Your task to perform on an android device: check data usage Image 0: 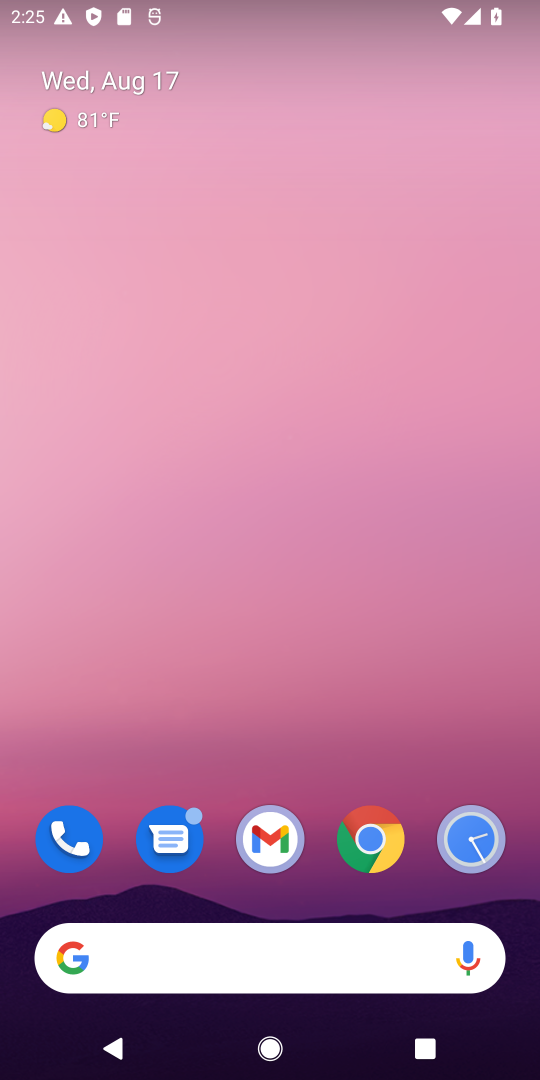
Step 0: drag from (312, 898) to (299, 185)
Your task to perform on an android device: check data usage Image 1: 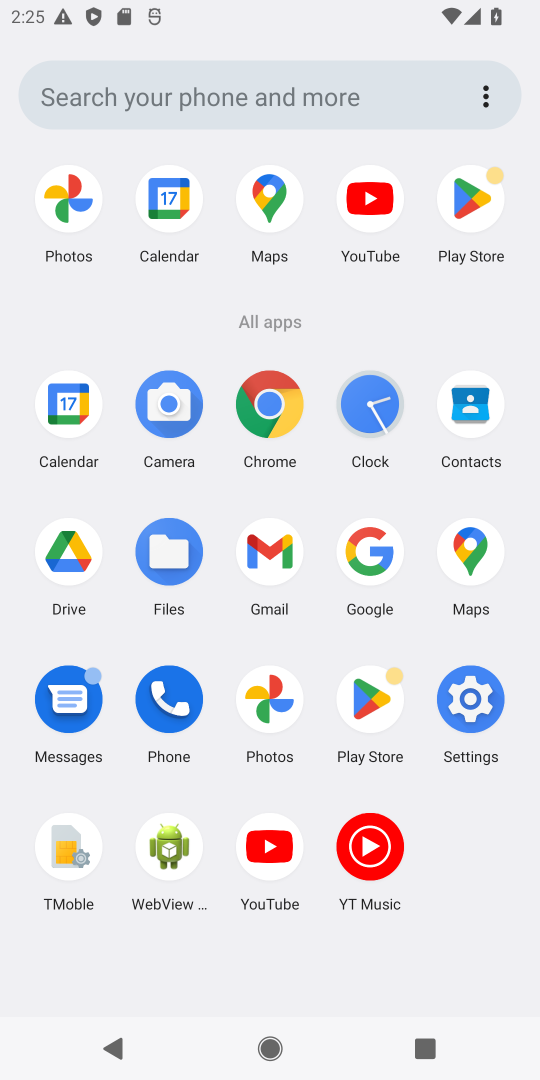
Step 1: click (466, 699)
Your task to perform on an android device: check data usage Image 2: 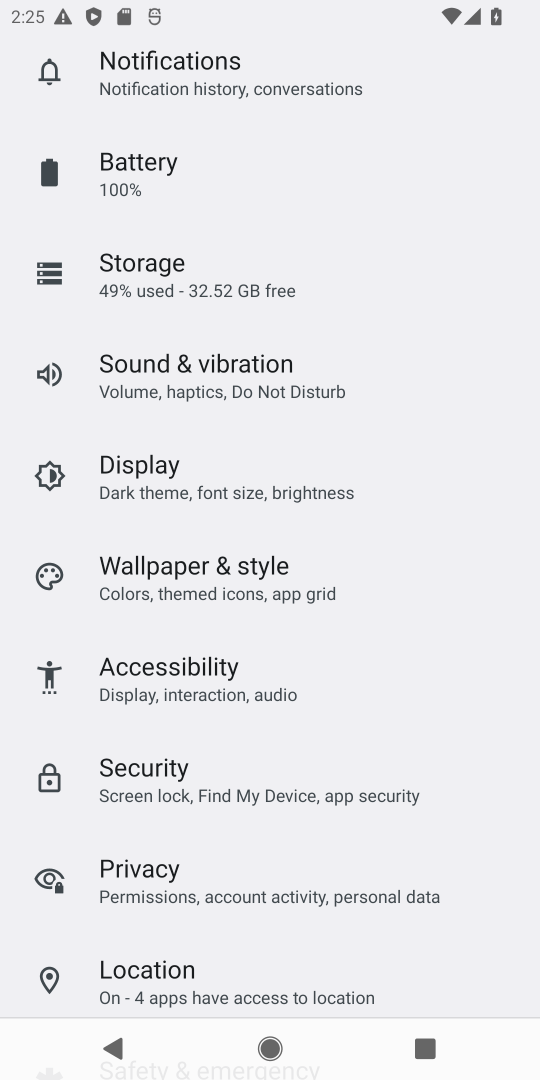
Step 2: drag from (193, 187) to (237, 726)
Your task to perform on an android device: check data usage Image 3: 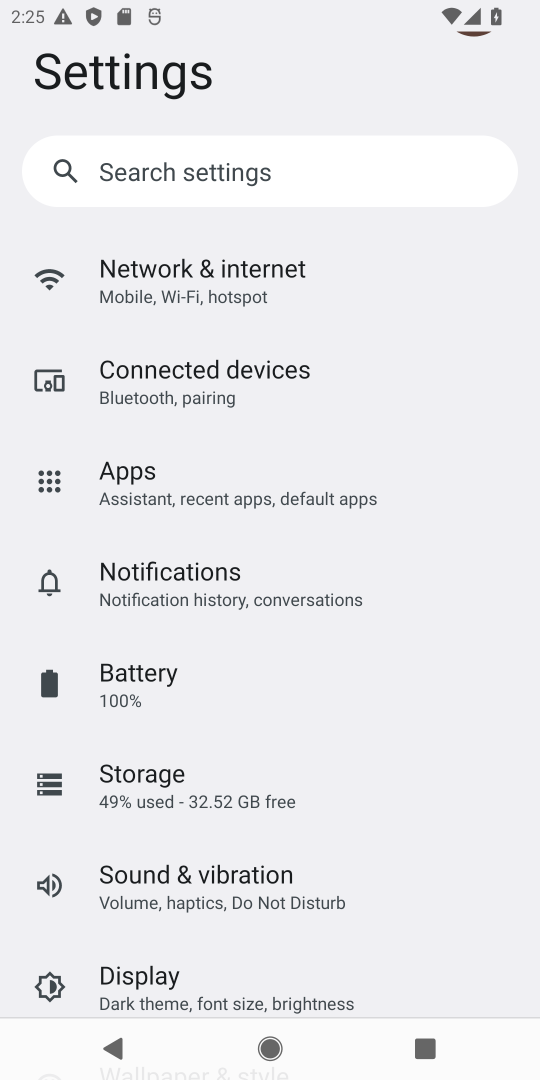
Step 3: click (160, 277)
Your task to perform on an android device: check data usage Image 4: 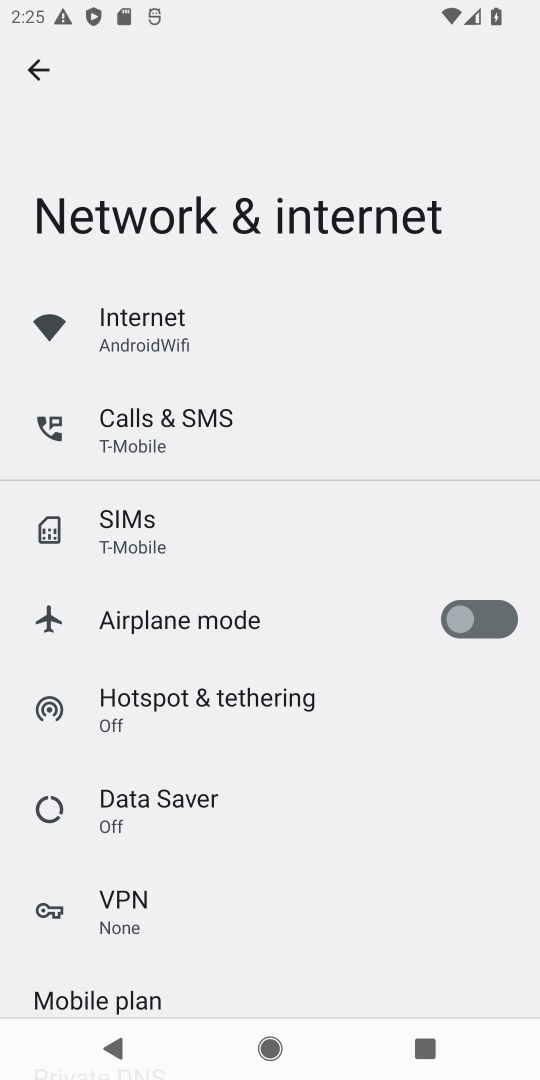
Step 4: click (155, 336)
Your task to perform on an android device: check data usage Image 5: 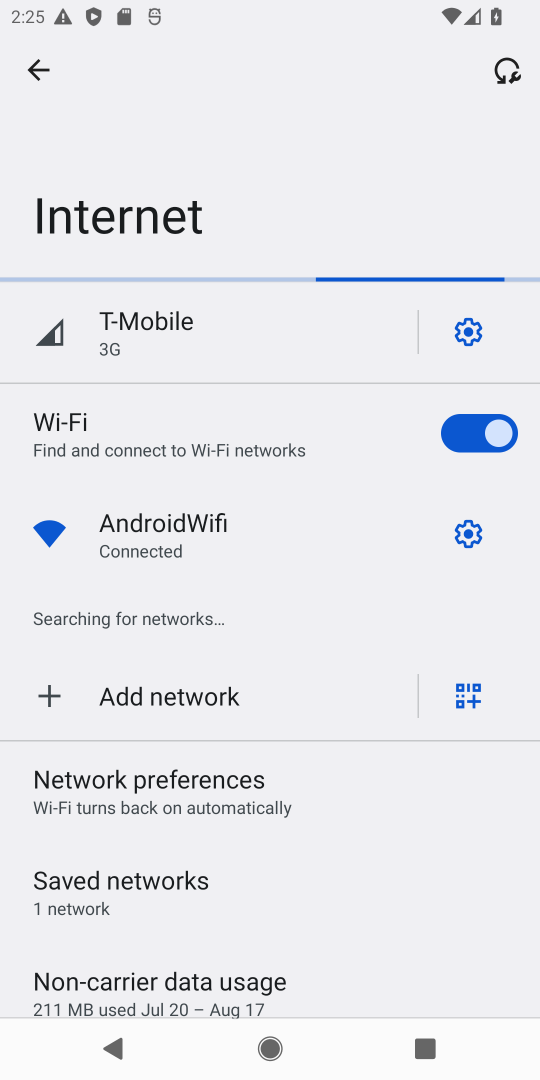
Step 5: click (101, 983)
Your task to perform on an android device: check data usage Image 6: 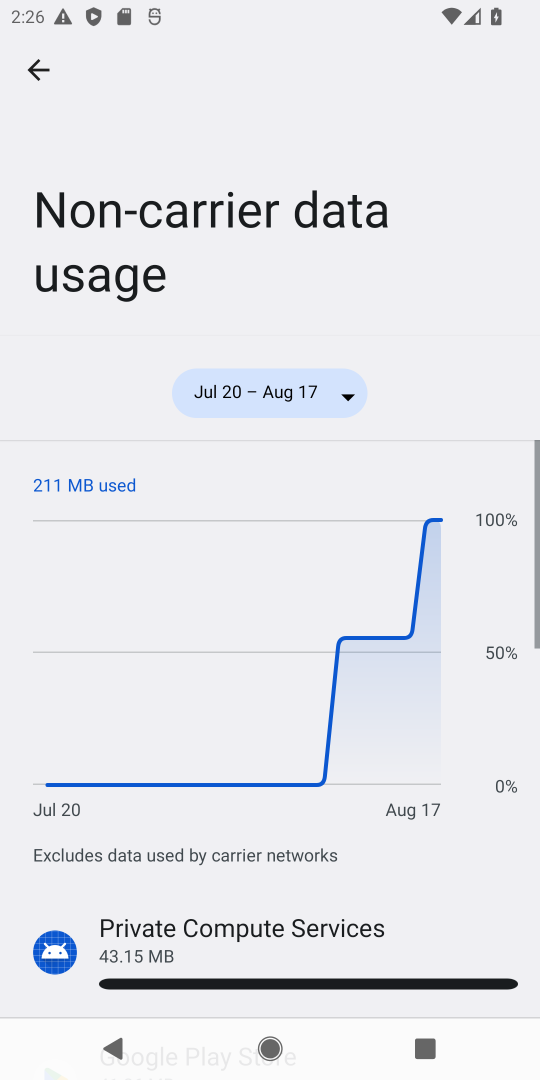
Step 6: task complete